Your task to perform on an android device: Open the map Image 0: 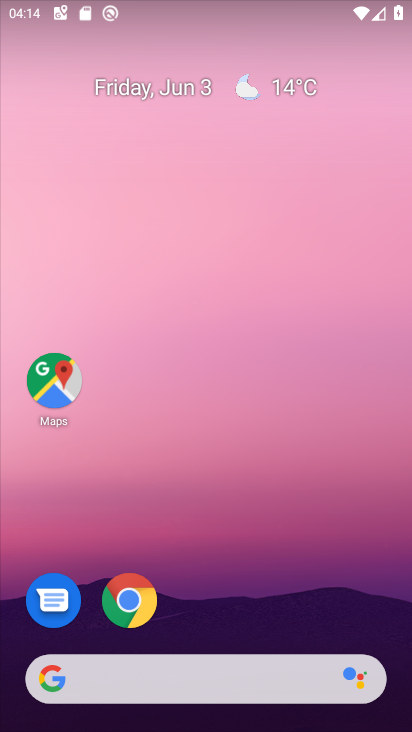
Step 0: click (56, 380)
Your task to perform on an android device: Open the map Image 1: 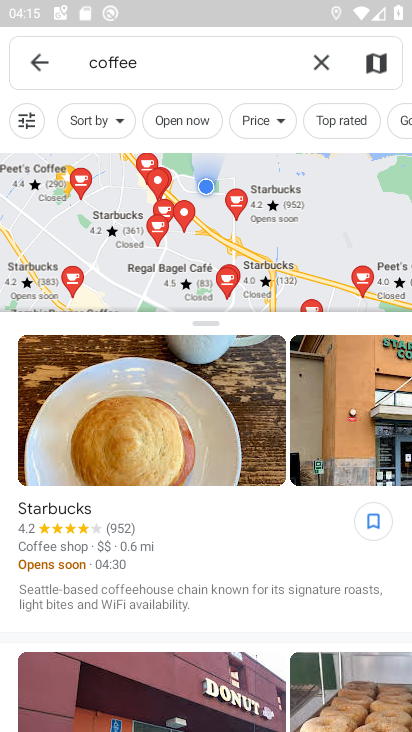
Step 1: task complete